Your task to perform on an android device: open app "ZOOM Cloud Meetings" Image 0: 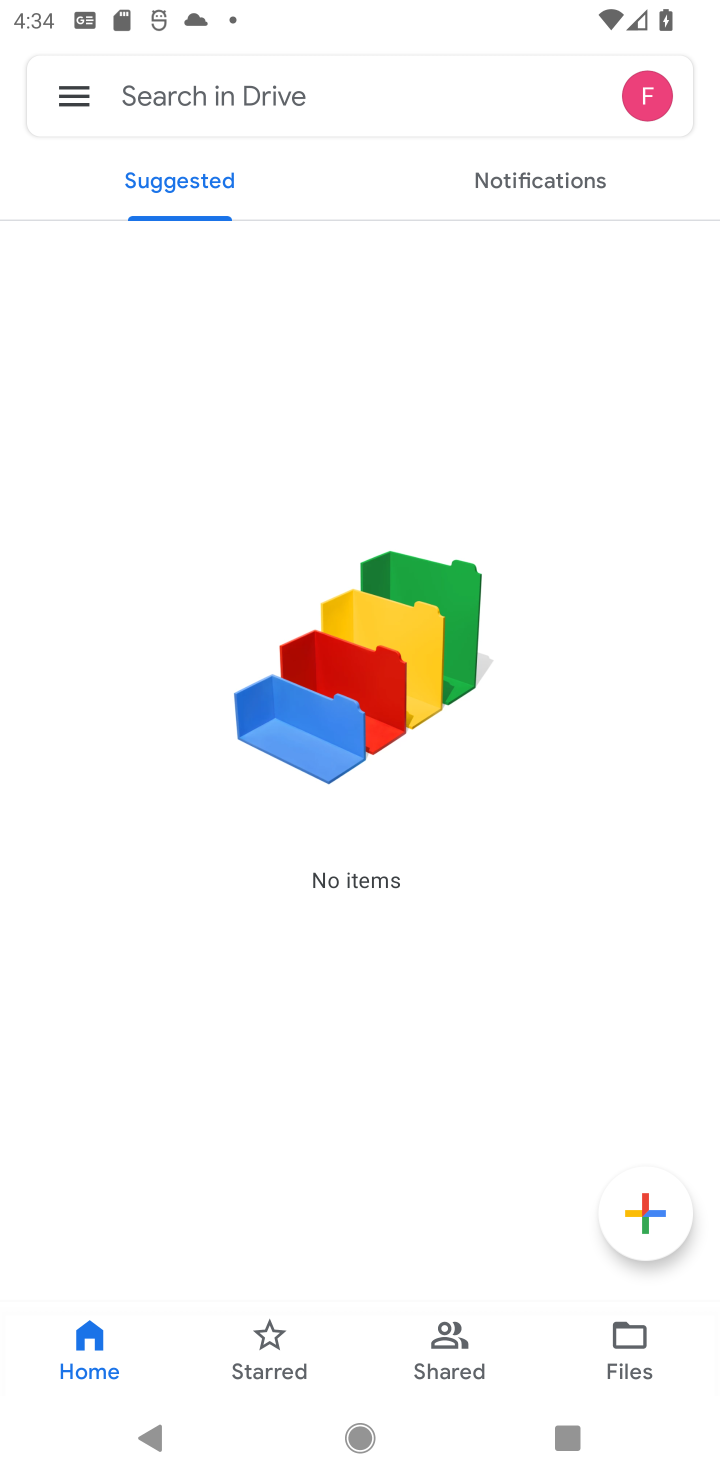
Step 0: press home button
Your task to perform on an android device: open app "ZOOM Cloud Meetings" Image 1: 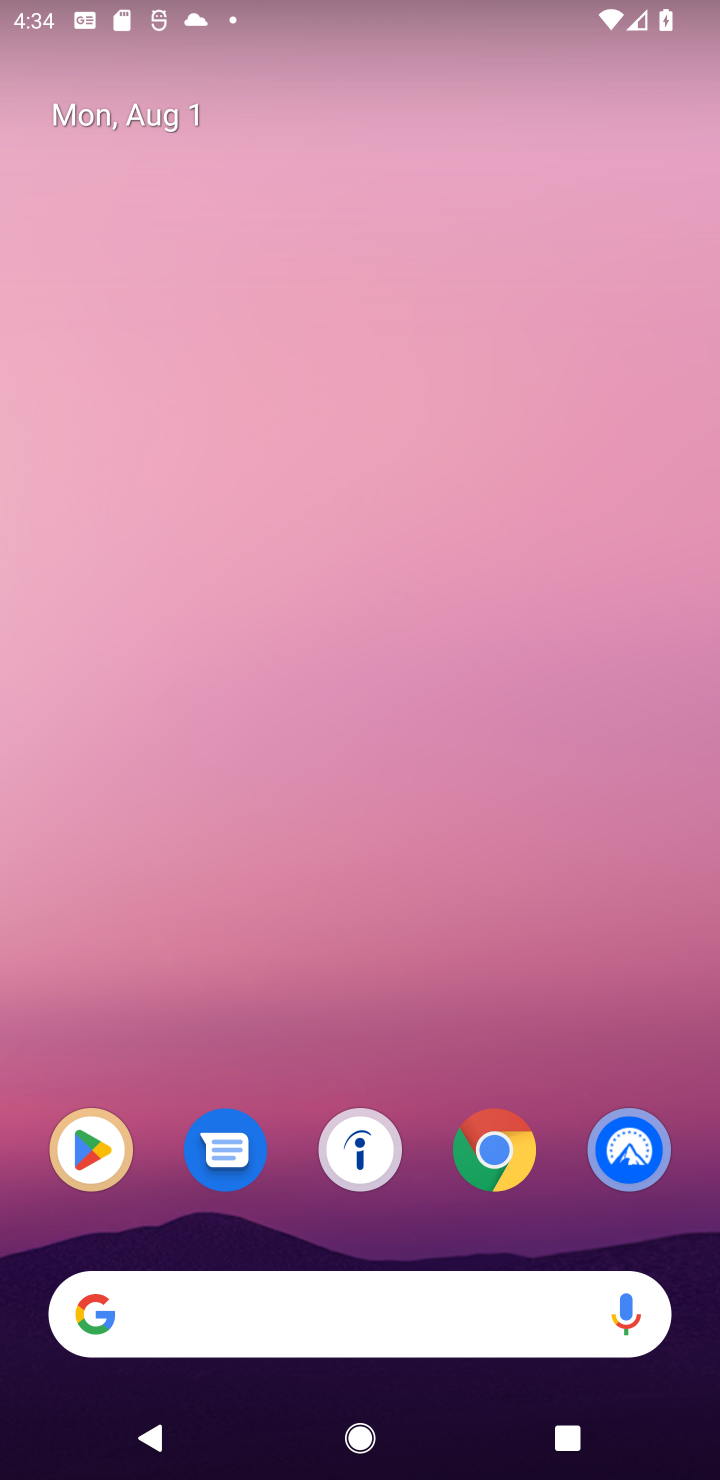
Step 1: drag from (282, 1236) to (364, 28)
Your task to perform on an android device: open app "ZOOM Cloud Meetings" Image 2: 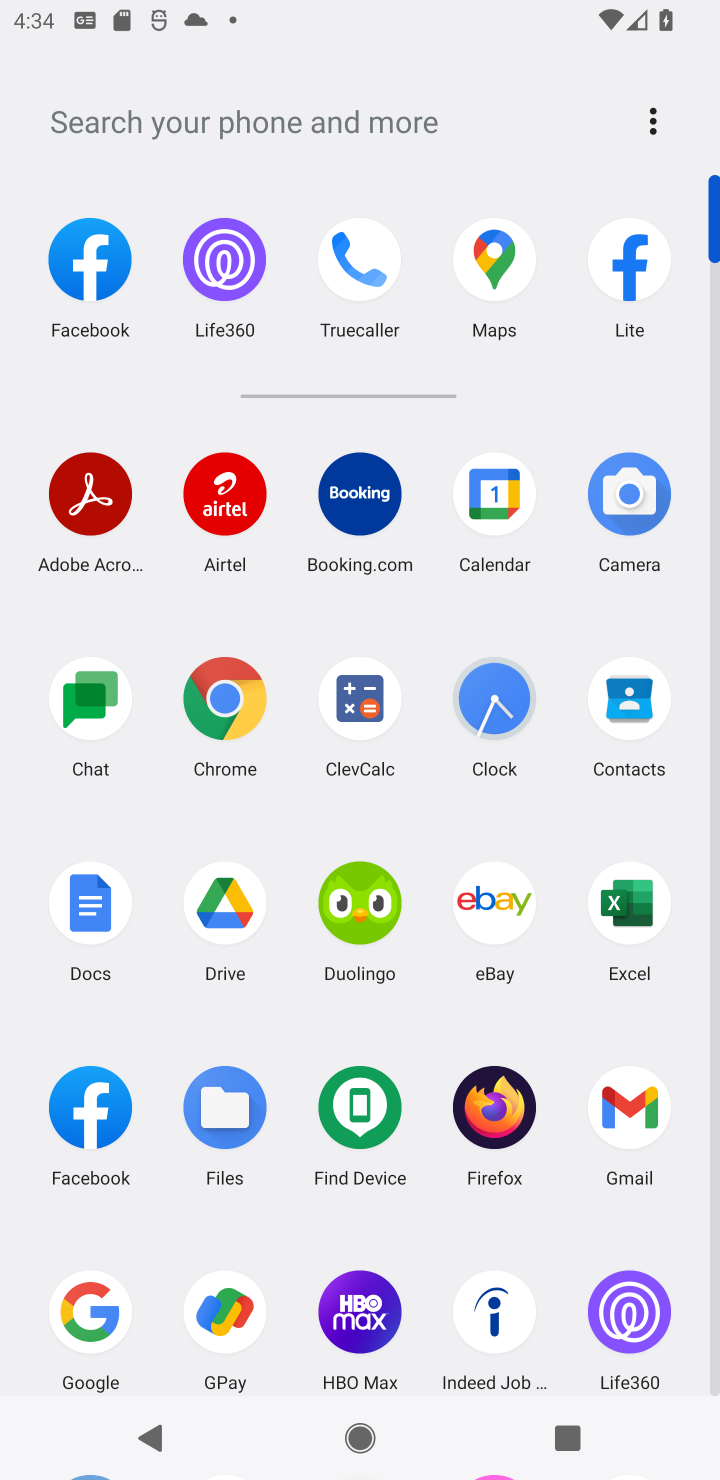
Step 2: click (714, 1390)
Your task to perform on an android device: open app "ZOOM Cloud Meetings" Image 3: 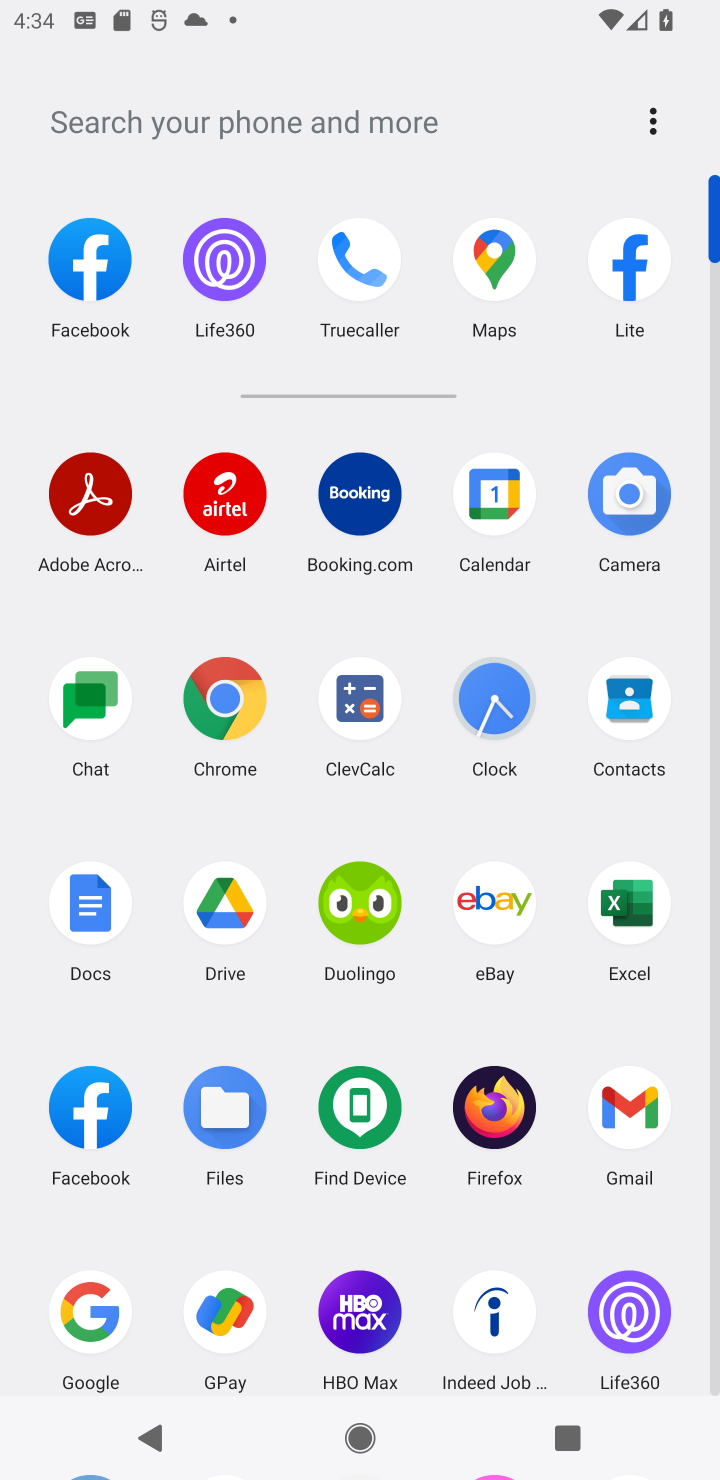
Step 3: click (714, 1390)
Your task to perform on an android device: open app "ZOOM Cloud Meetings" Image 4: 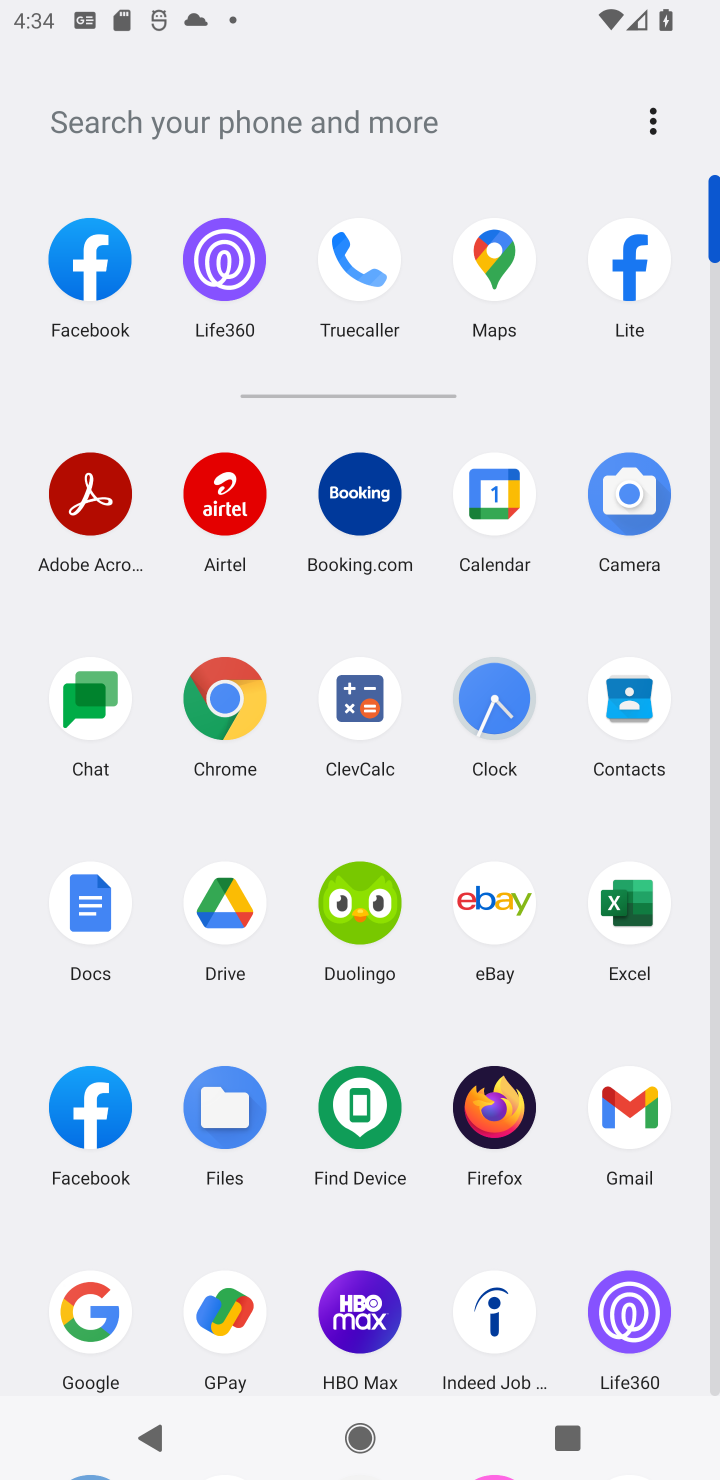
Step 4: click (718, 1379)
Your task to perform on an android device: open app "ZOOM Cloud Meetings" Image 5: 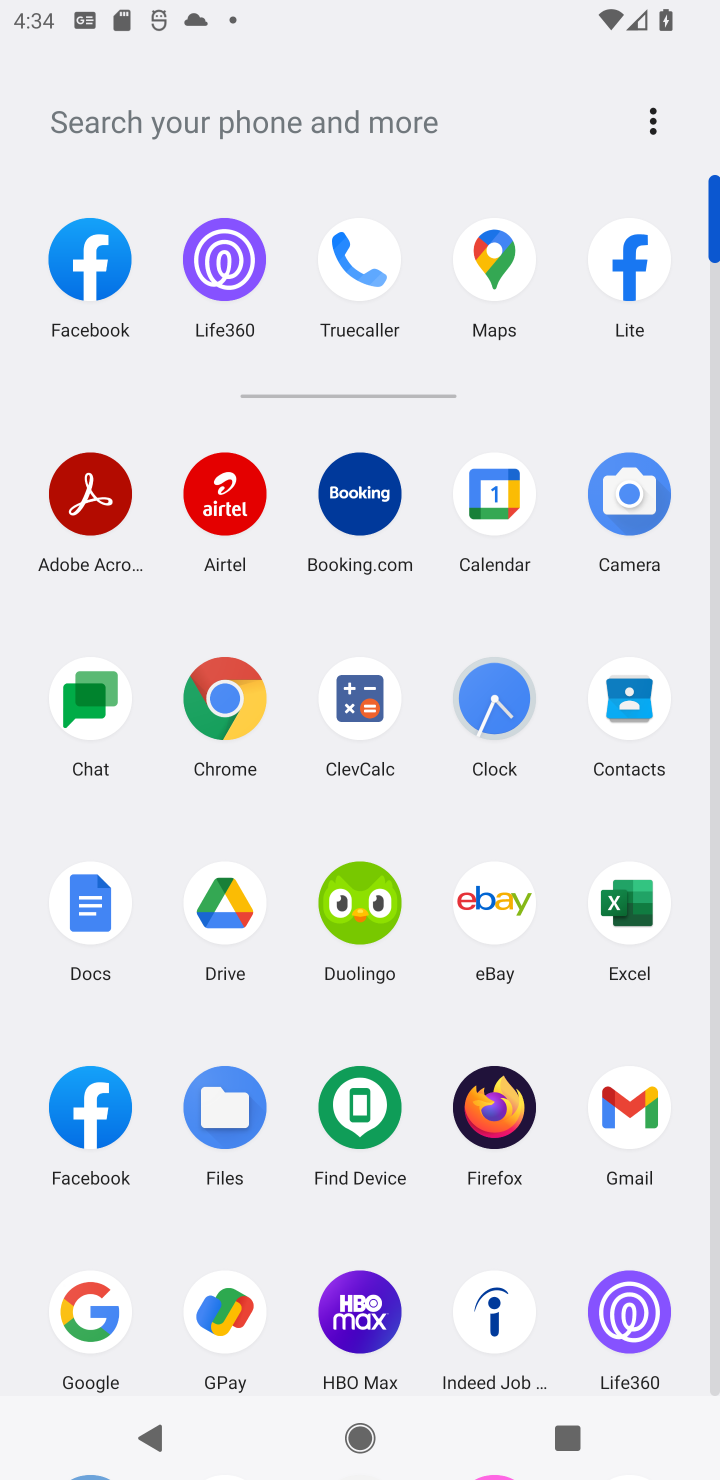
Step 5: click (718, 1379)
Your task to perform on an android device: open app "ZOOM Cloud Meetings" Image 6: 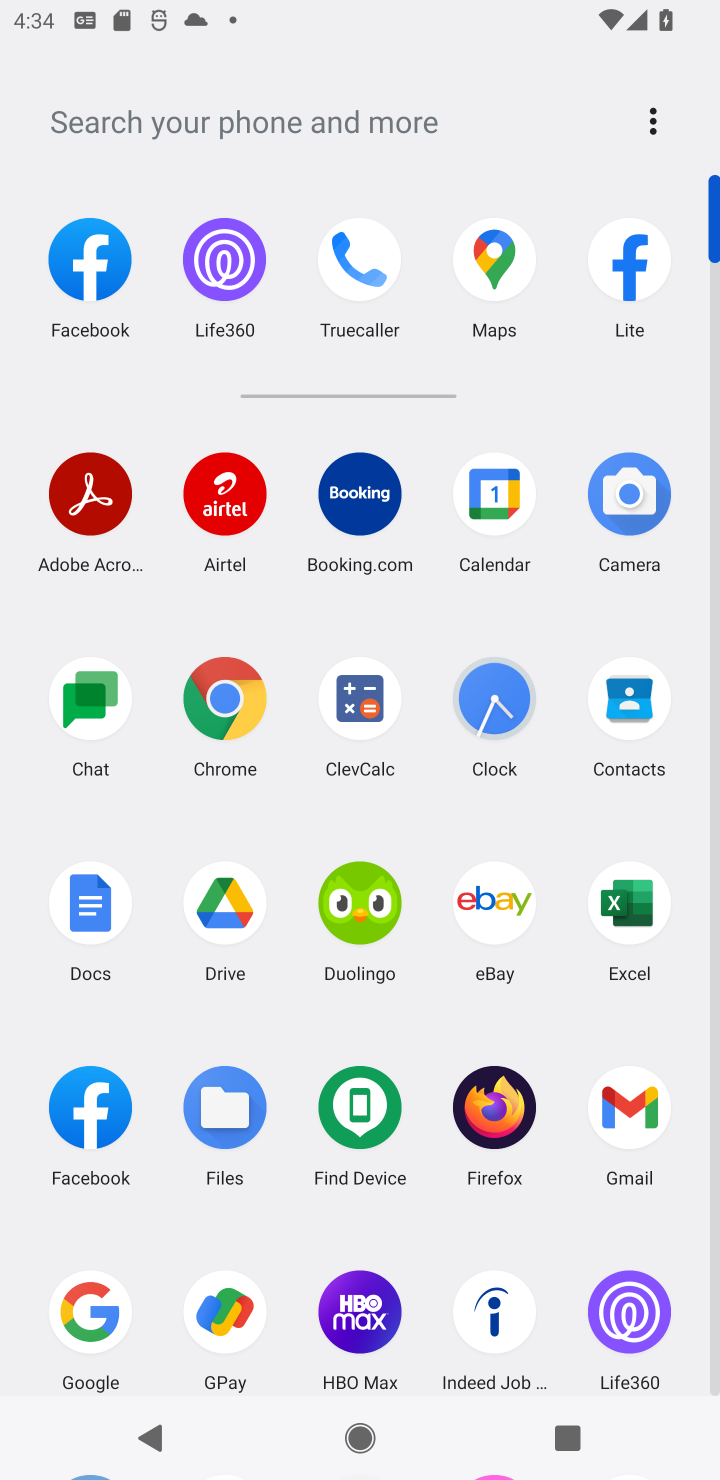
Step 6: drag from (286, 1222) to (284, 331)
Your task to perform on an android device: open app "ZOOM Cloud Meetings" Image 7: 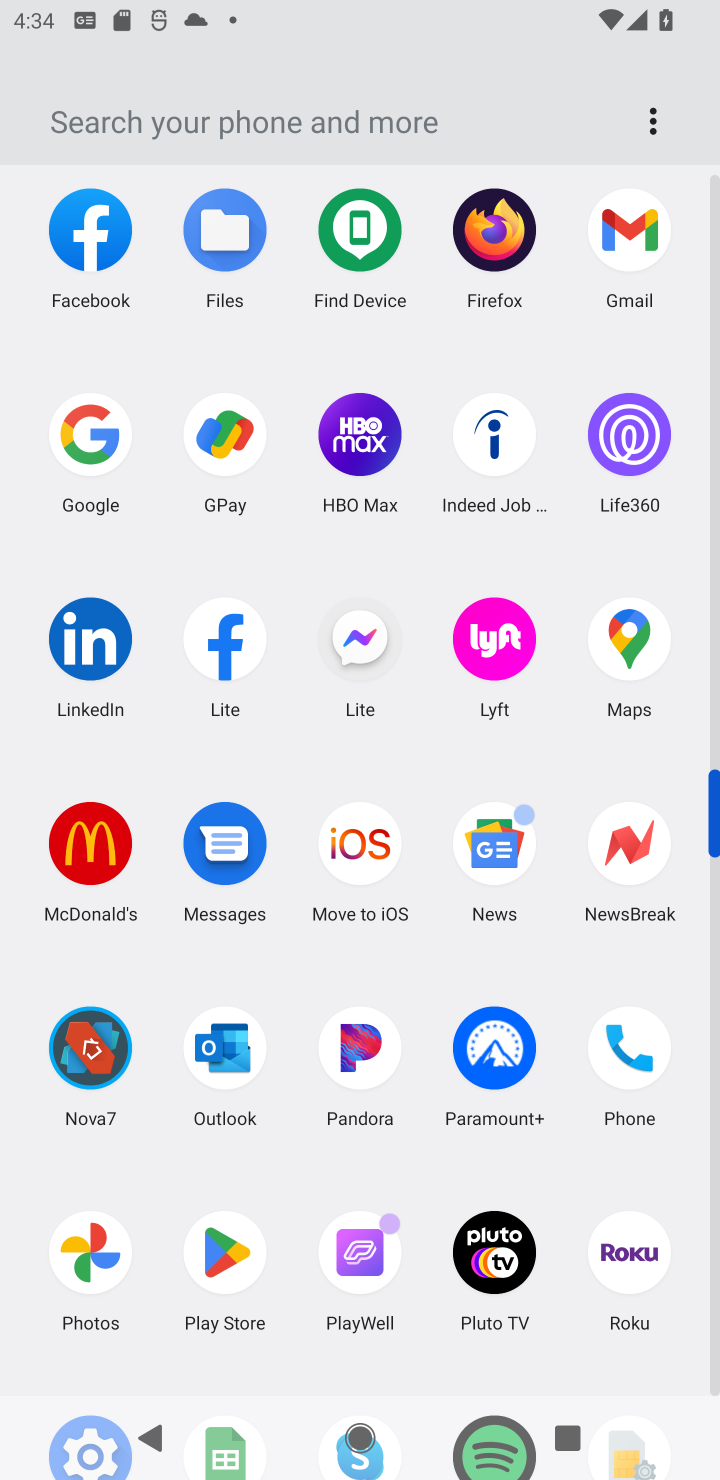
Step 7: drag from (290, 1378) to (374, 532)
Your task to perform on an android device: open app "ZOOM Cloud Meetings" Image 8: 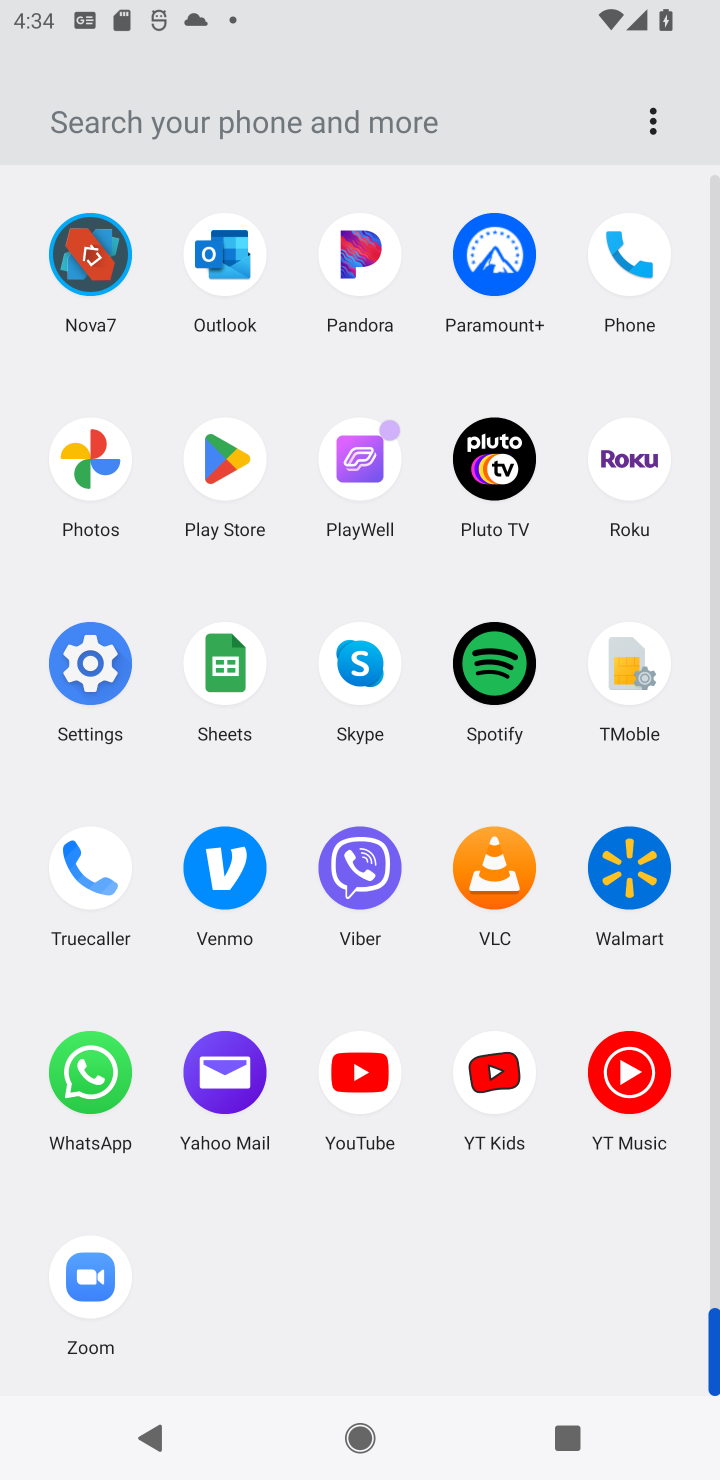
Step 8: click (113, 1281)
Your task to perform on an android device: open app "ZOOM Cloud Meetings" Image 9: 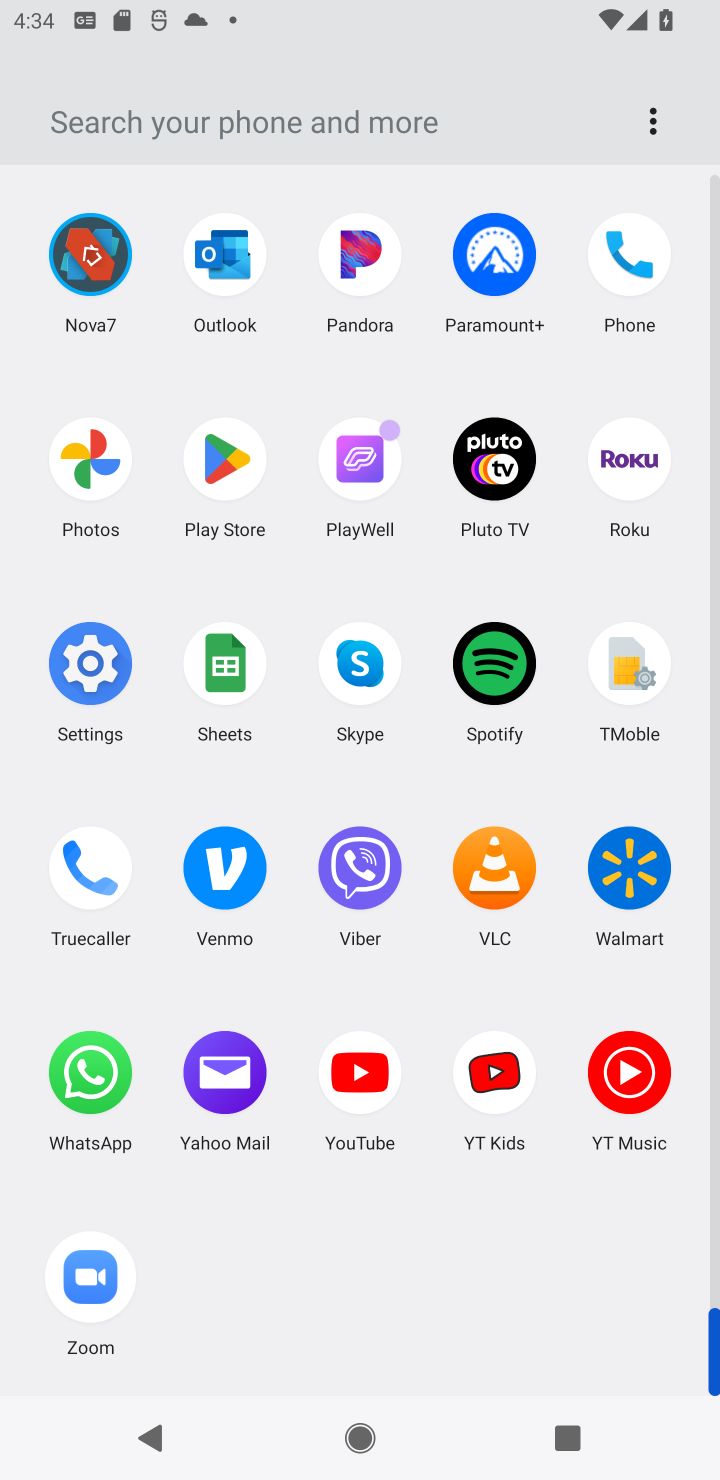
Step 9: task complete